Your task to perform on an android device: Go to wifi settings Image 0: 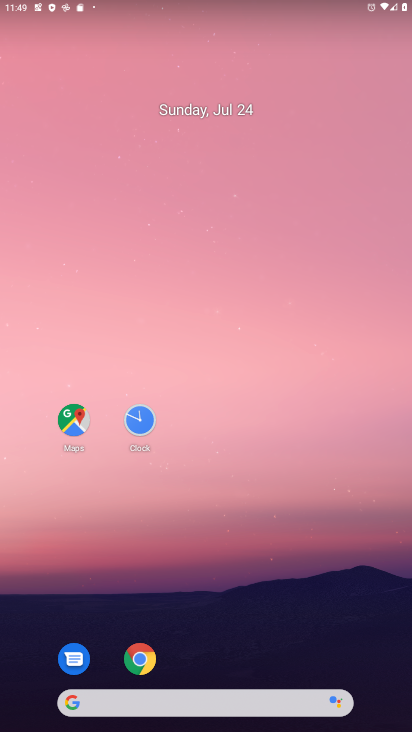
Step 0: drag from (322, 360) to (310, 243)
Your task to perform on an android device: Go to wifi settings Image 1: 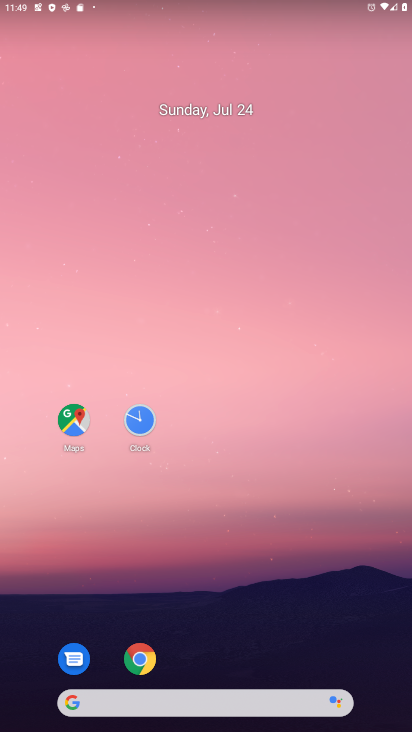
Step 1: drag from (390, 718) to (305, 80)
Your task to perform on an android device: Go to wifi settings Image 2: 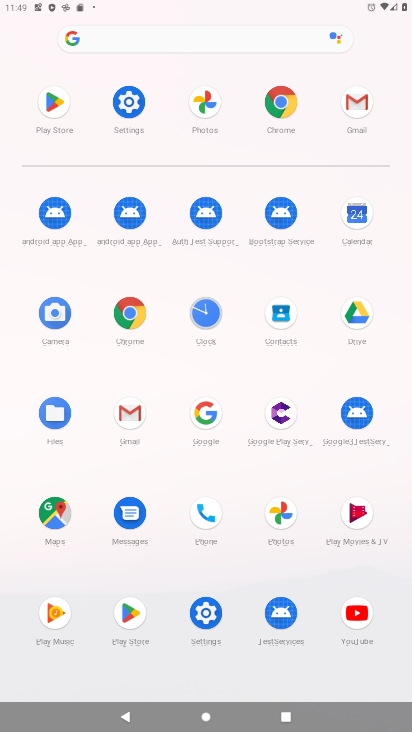
Step 2: click (132, 103)
Your task to perform on an android device: Go to wifi settings Image 3: 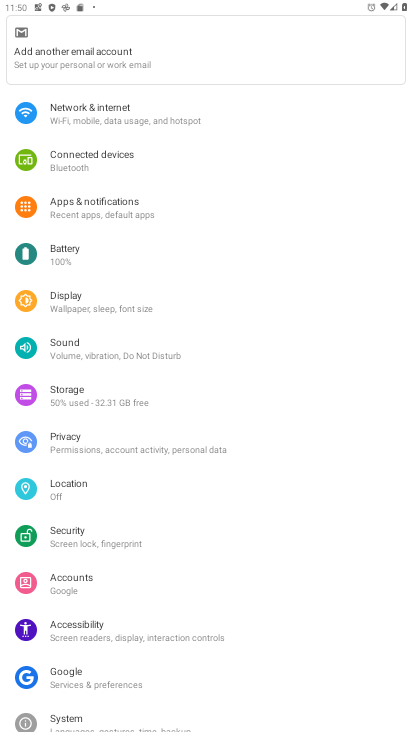
Step 3: click (95, 103)
Your task to perform on an android device: Go to wifi settings Image 4: 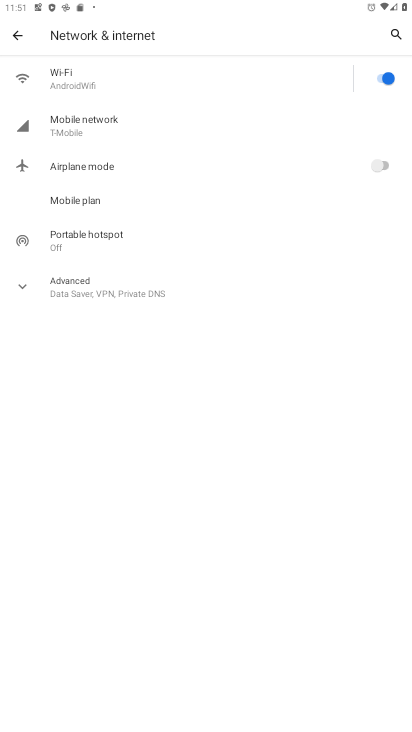
Step 4: click (168, 81)
Your task to perform on an android device: Go to wifi settings Image 5: 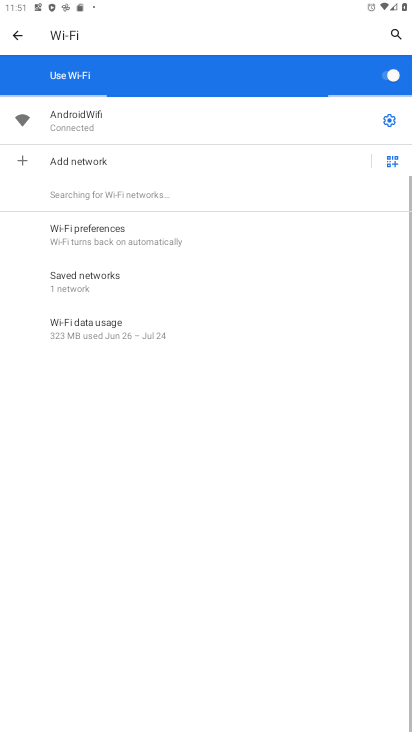
Step 5: click (391, 120)
Your task to perform on an android device: Go to wifi settings Image 6: 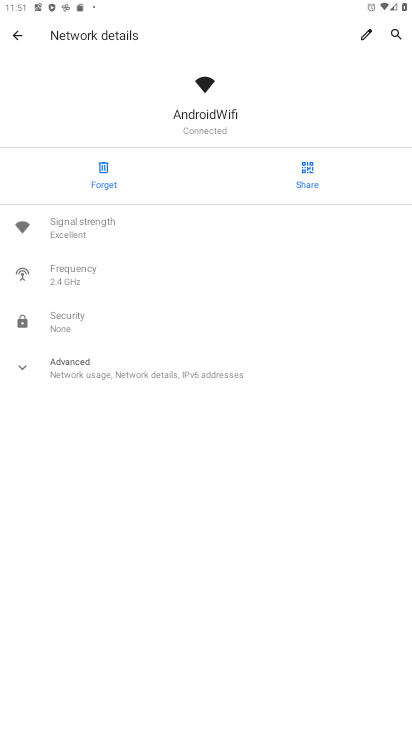
Step 6: task complete